Your task to perform on an android device: Set the phone to "Do not disturb". Image 0: 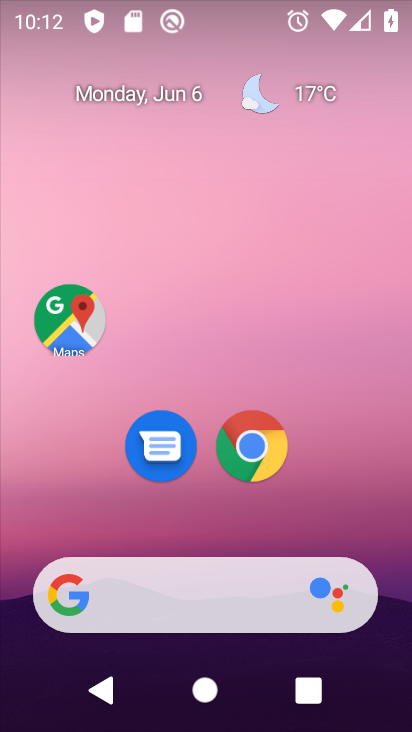
Step 0: drag from (208, 17) to (230, 494)
Your task to perform on an android device: Set the phone to "Do not disturb". Image 1: 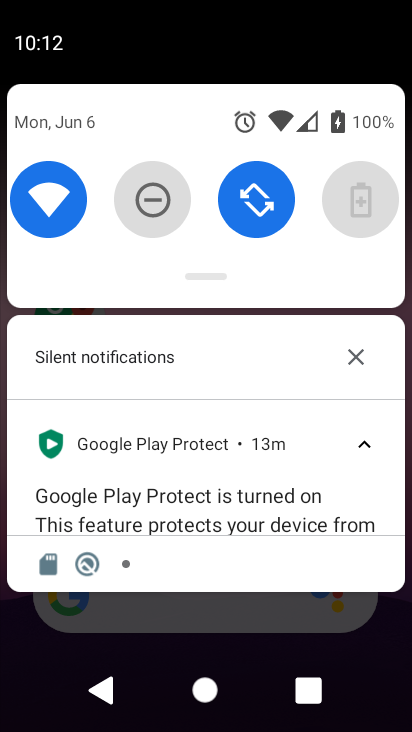
Step 1: click (170, 193)
Your task to perform on an android device: Set the phone to "Do not disturb". Image 2: 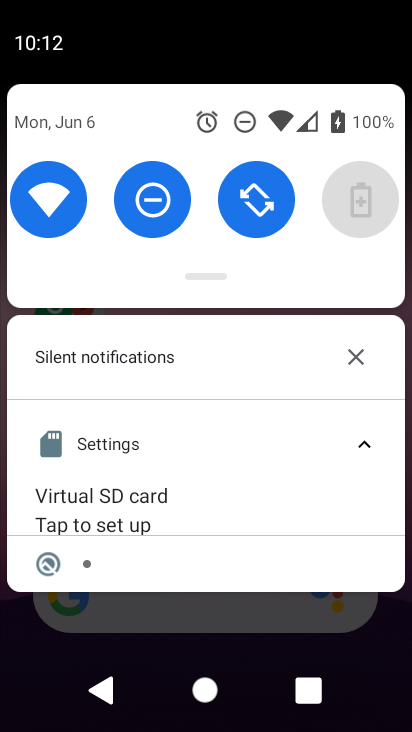
Step 2: task complete